Your task to perform on an android device: empty trash in google photos Image 0: 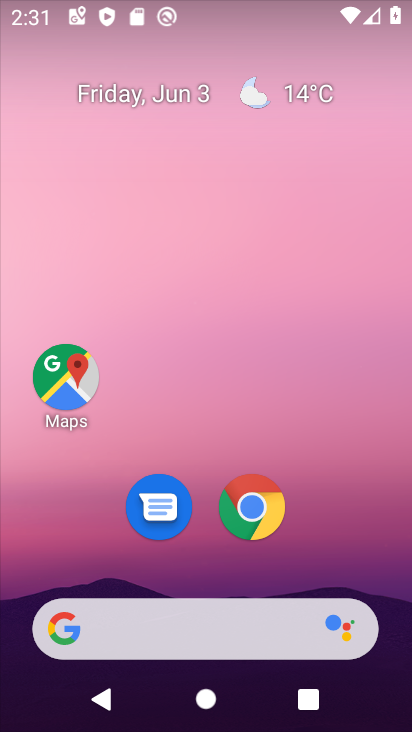
Step 0: drag from (358, 522) to (260, 12)
Your task to perform on an android device: empty trash in google photos Image 1: 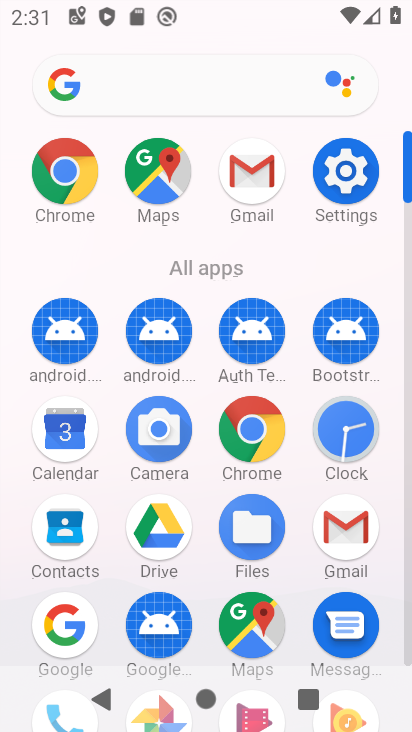
Step 1: drag from (304, 278) to (273, 40)
Your task to perform on an android device: empty trash in google photos Image 2: 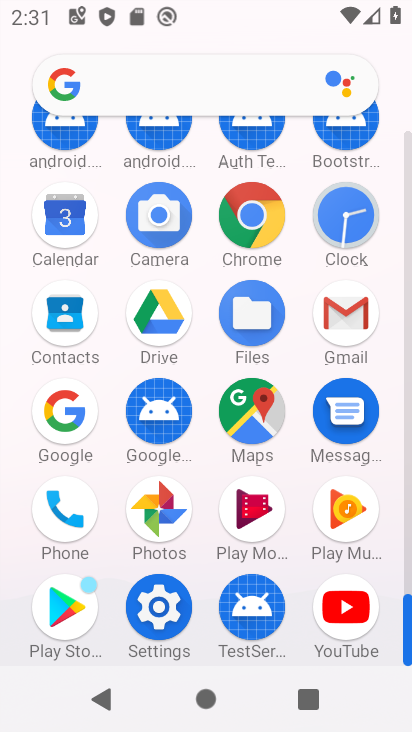
Step 2: click (157, 505)
Your task to perform on an android device: empty trash in google photos Image 3: 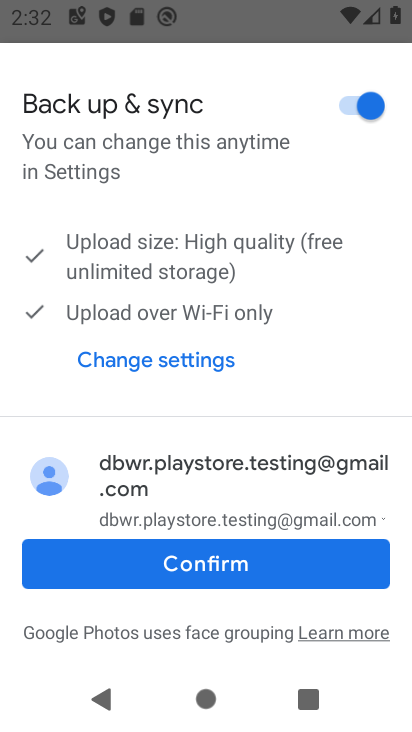
Step 3: click (190, 564)
Your task to perform on an android device: empty trash in google photos Image 4: 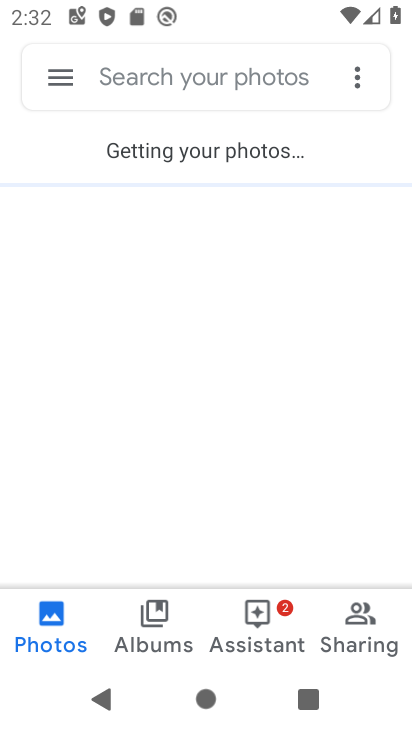
Step 4: click (60, 78)
Your task to perform on an android device: empty trash in google photos Image 5: 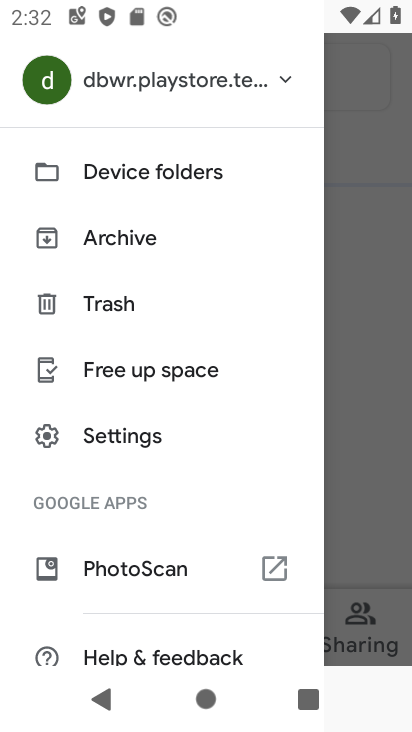
Step 5: click (108, 301)
Your task to perform on an android device: empty trash in google photos Image 6: 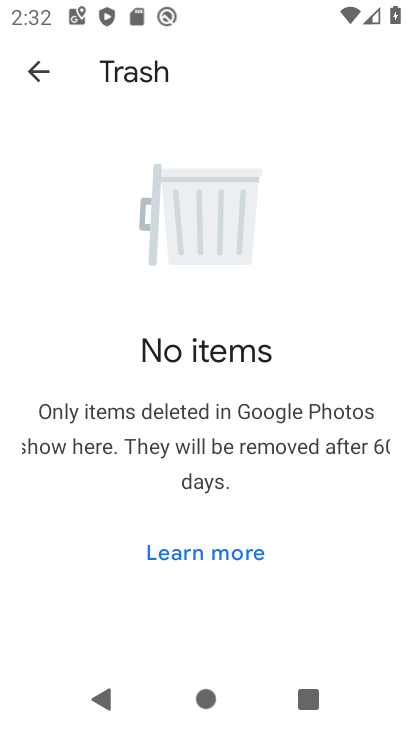
Step 6: task complete